Your task to perform on an android device: find snoozed emails in the gmail app Image 0: 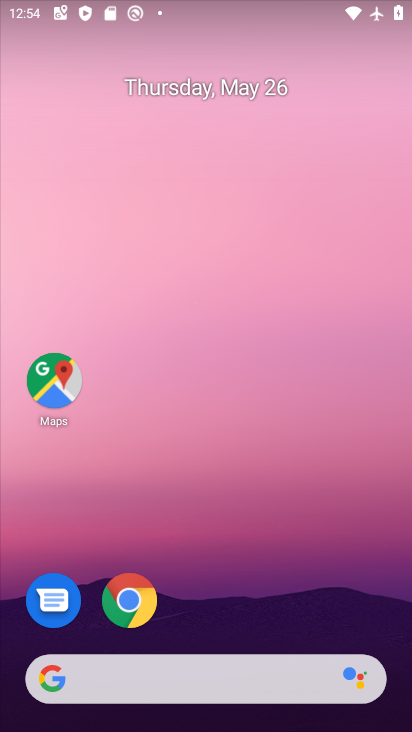
Step 0: drag from (239, 571) to (263, 265)
Your task to perform on an android device: find snoozed emails in the gmail app Image 1: 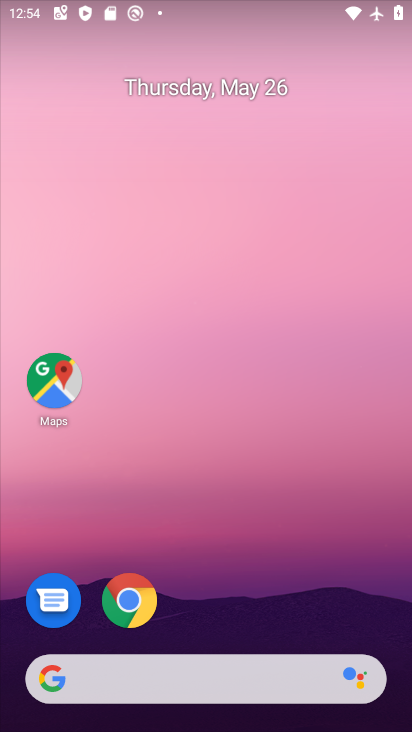
Step 1: drag from (241, 520) to (254, 182)
Your task to perform on an android device: find snoozed emails in the gmail app Image 2: 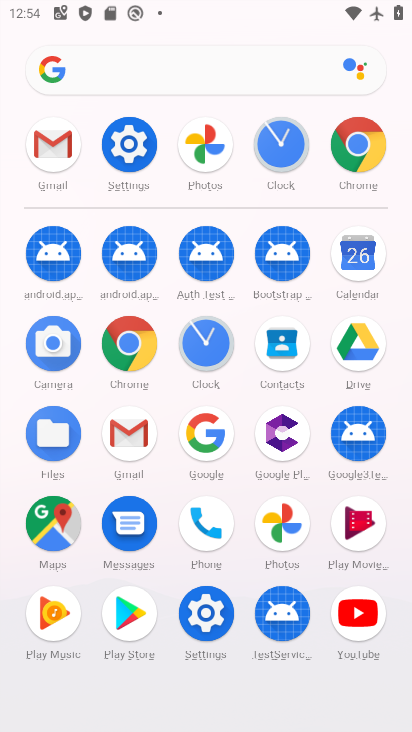
Step 2: click (125, 438)
Your task to perform on an android device: find snoozed emails in the gmail app Image 3: 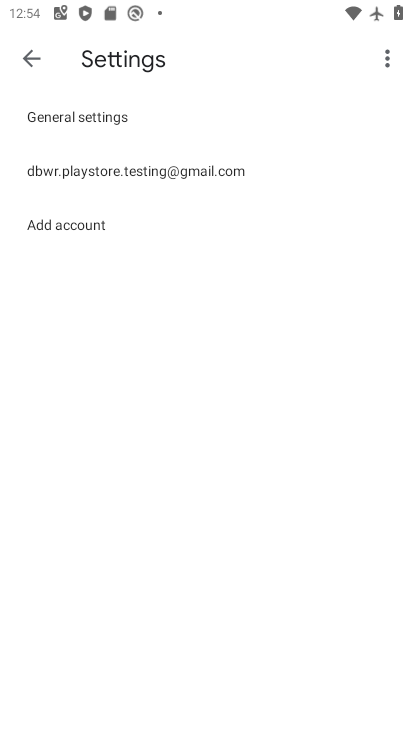
Step 3: click (31, 65)
Your task to perform on an android device: find snoozed emails in the gmail app Image 4: 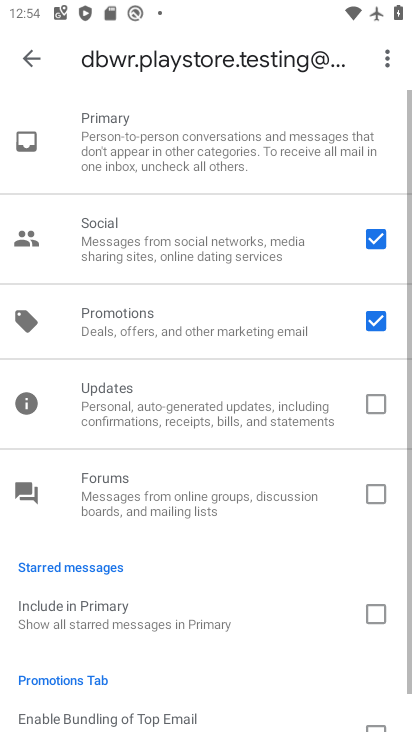
Step 4: click (31, 65)
Your task to perform on an android device: find snoozed emails in the gmail app Image 5: 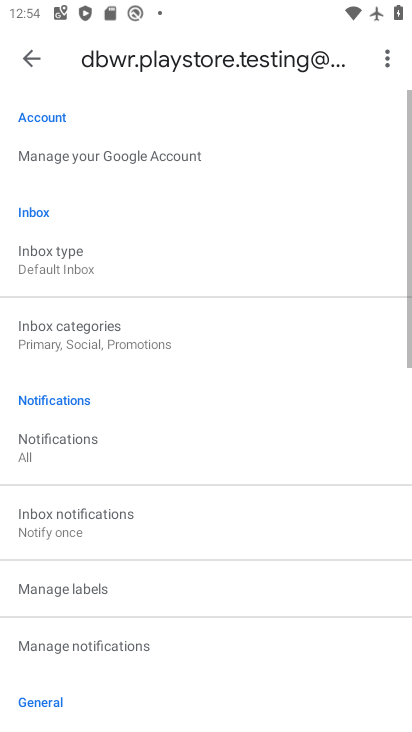
Step 5: click (31, 65)
Your task to perform on an android device: find snoozed emails in the gmail app Image 6: 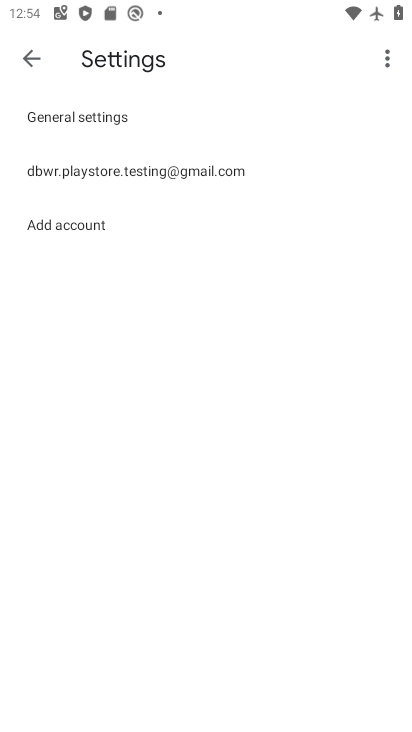
Step 6: click (31, 65)
Your task to perform on an android device: find snoozed emails in the gmail app Image 7: 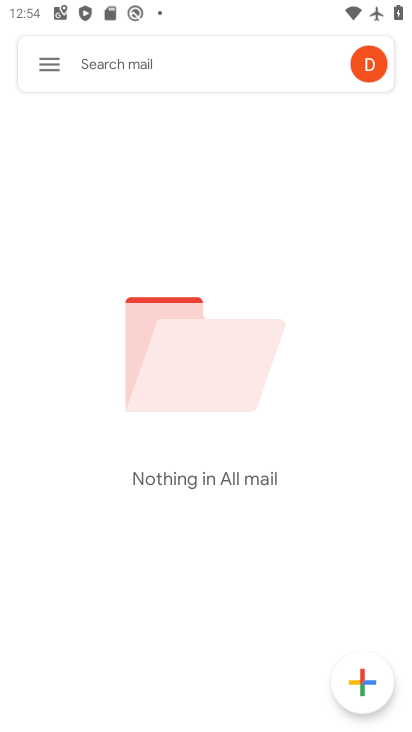
Step 7: click (31, 65)
Your task to perform on an android device: find snoozed emails in the gmail app Image 8: 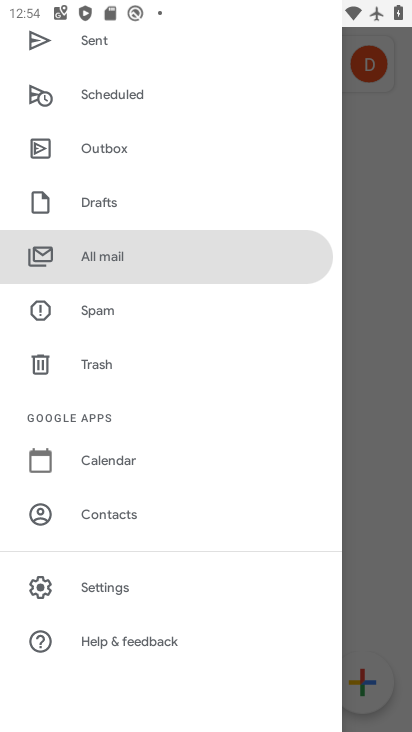
Step 8: drag from (145, 185) to (119, 376)
Your task to perform on an android device: find snoozed emails in the gmail app Image 9: 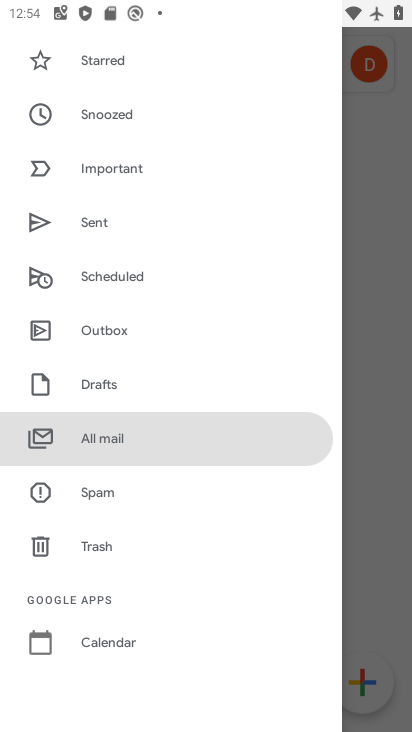
Step 9: click (131, 108)
Your task to perform on an android device: find snoozed emails in the gmail app Image 10: 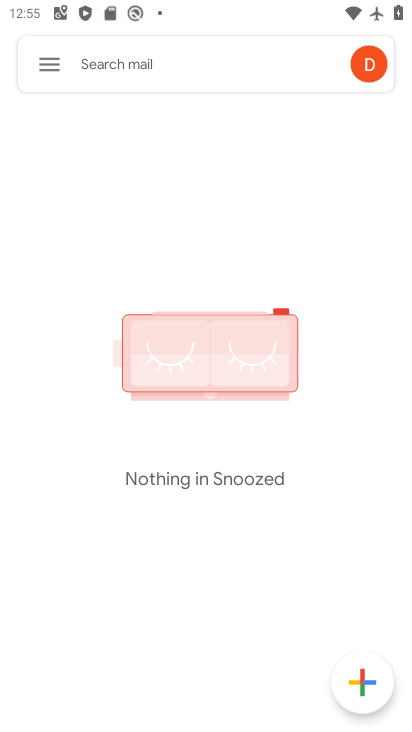
Step 10: task complete